Your task to perform on an android device: open app "DoorDash - Dasher" (install if not already installed) and enter user name: "resistor@inbox.com" and password: "cholera" Image 0: 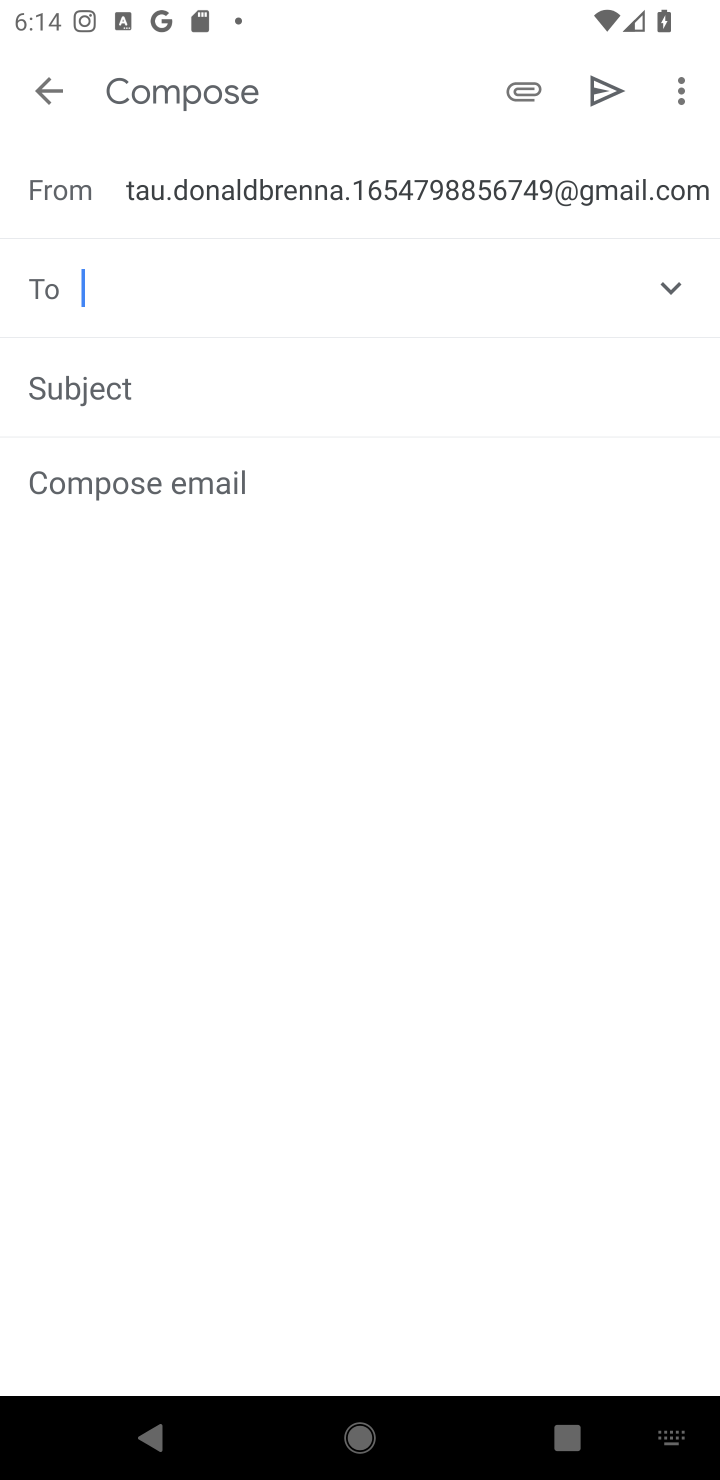
Step 0: press home button
Your task to perform on an android device: open app "DoorDash - Dasher" (install if not already installed) and enter user name: "resistor@inbox.com" and password: "cholera" Image 1: 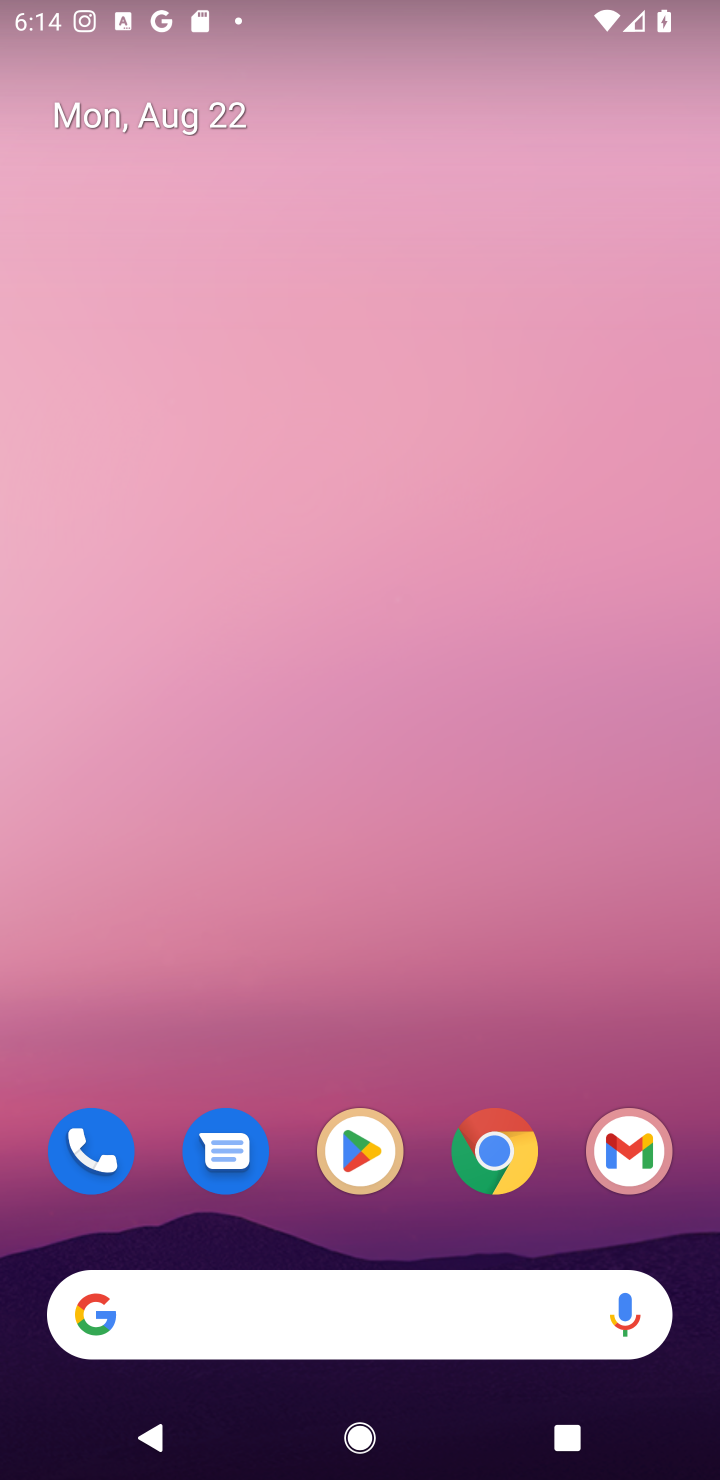
Step 1: click (347, 1156)
Your task to perform on an android device: open app "DoorDash - Dasher" (install if not already installed) and enter user name: "resistor@inbox.com" and password: "cholera" Image 2: 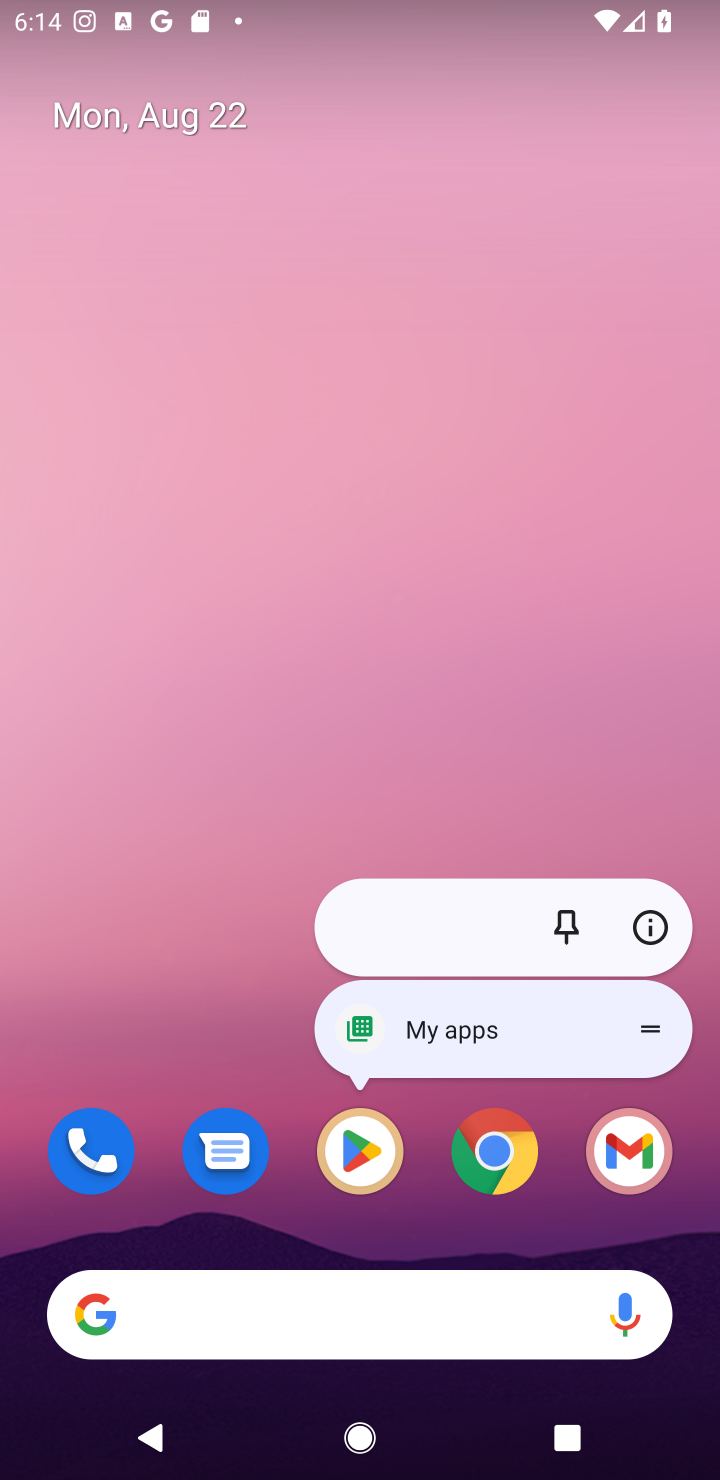
Step 2: click (367, 1161)
Your task to perform on an android device: open app "DoorDash - Dasher" (install if not already installed) and enter user name: "resistor@inbox.com" and password: "cholera" Image 3: 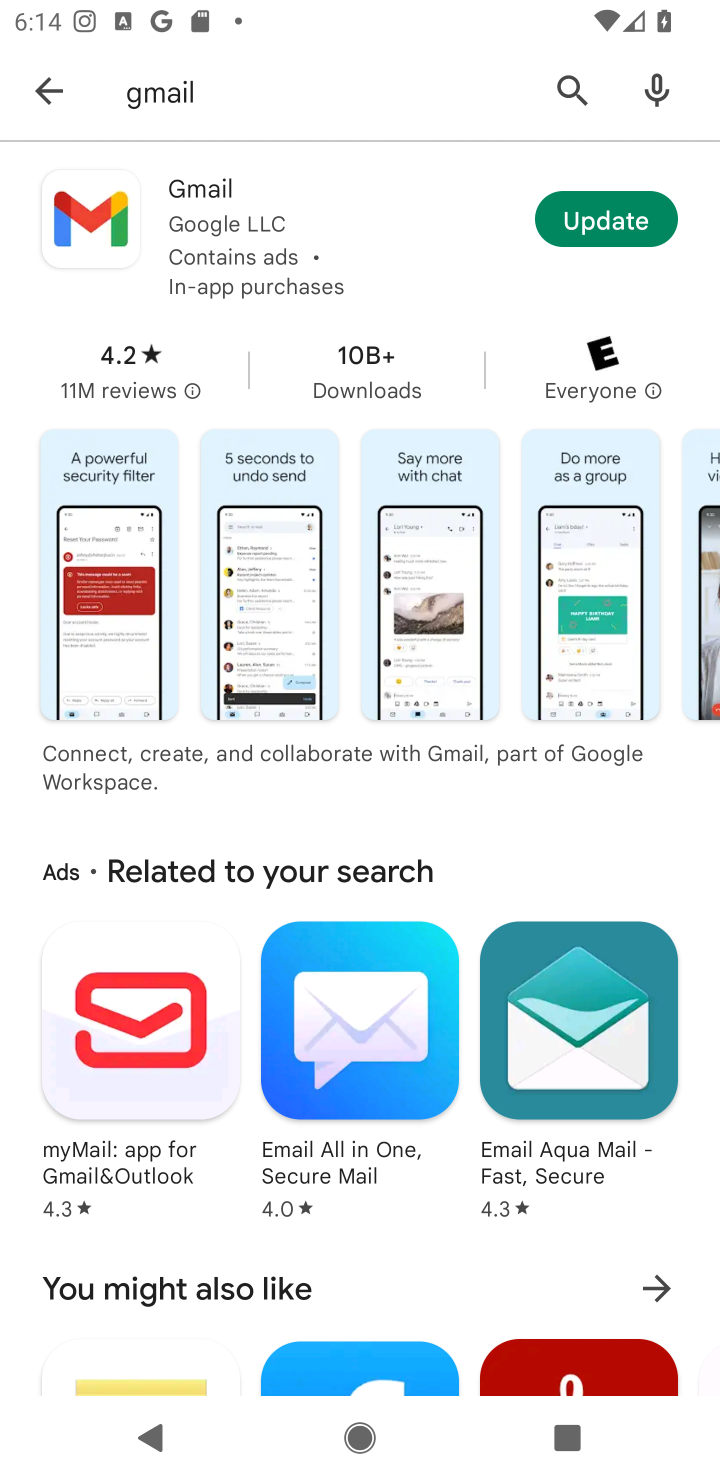
Step 3: click (563, 80)
Your task to perform on an android device: open app "DoorDash - Dasher" (install if not already installed) and enter user name: "resistor@inbox.com" and password: "cholera" Image 4: 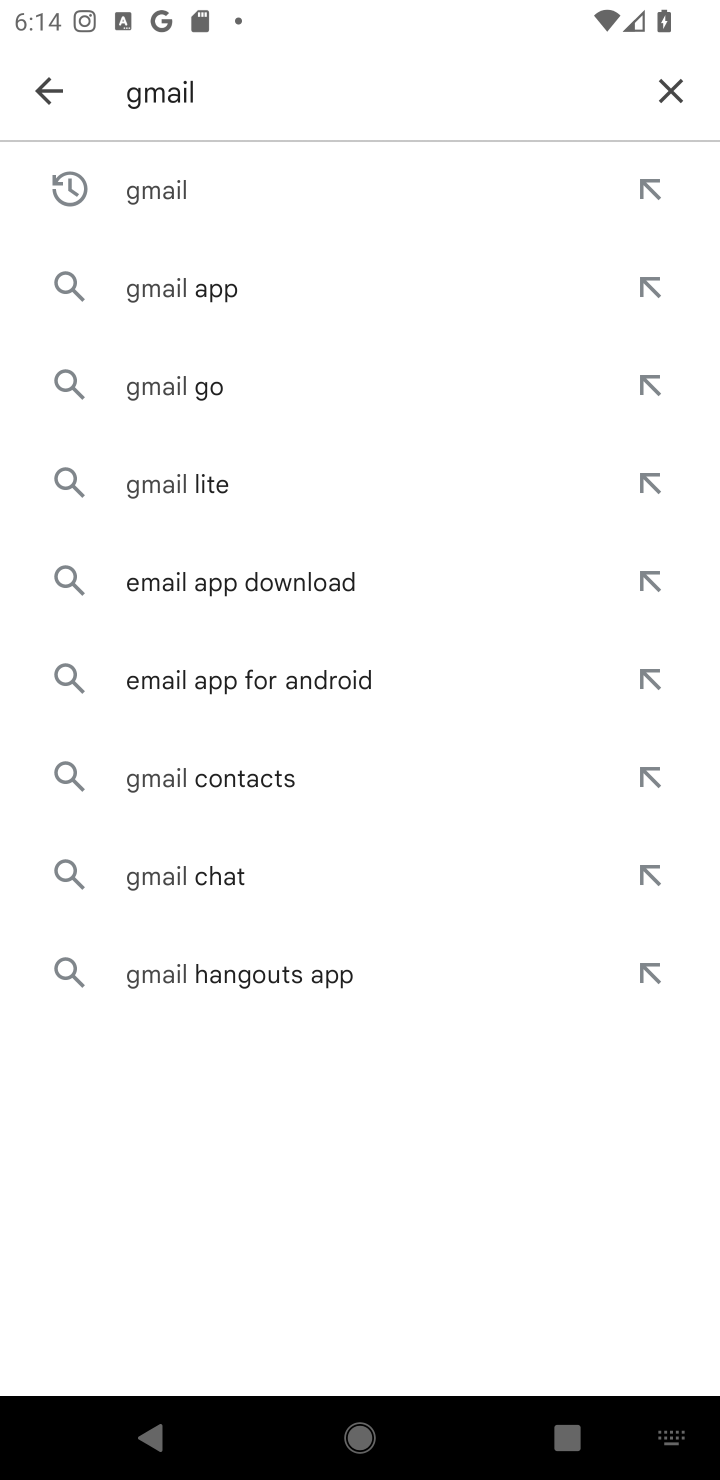
Step 4: click (670, 86)
Your task to perform on an android device: open app "DoorDash - Dasher" (install if not already installed) and enter user name: "resistor@inbox.com" and password: "cholera" Image 5: 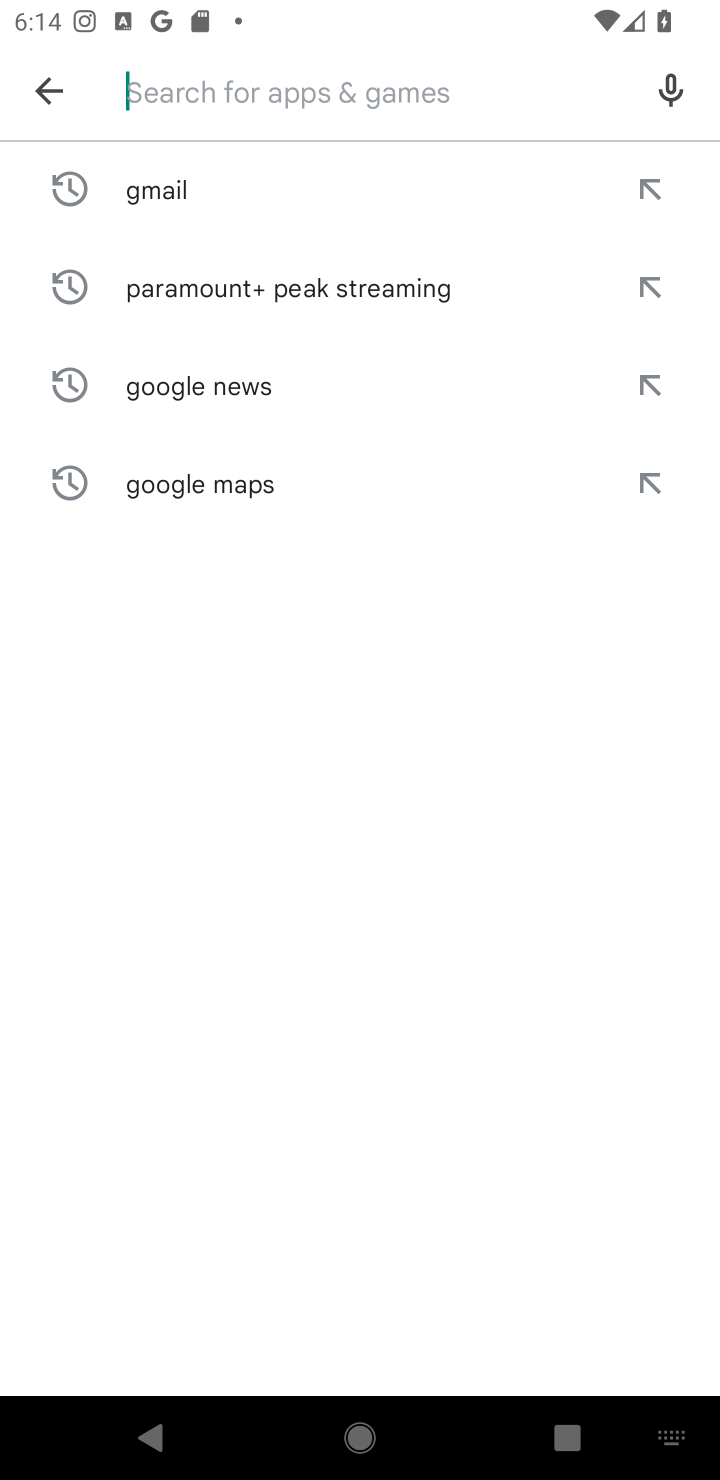
Step 5: type "DoorDash - Dasher"
Your task to perform on an android device: open app "DoorDash - Dasher" (install if not already installed) and enter user name: "resistor@inbox.com" and password: "cholera" Image 6: 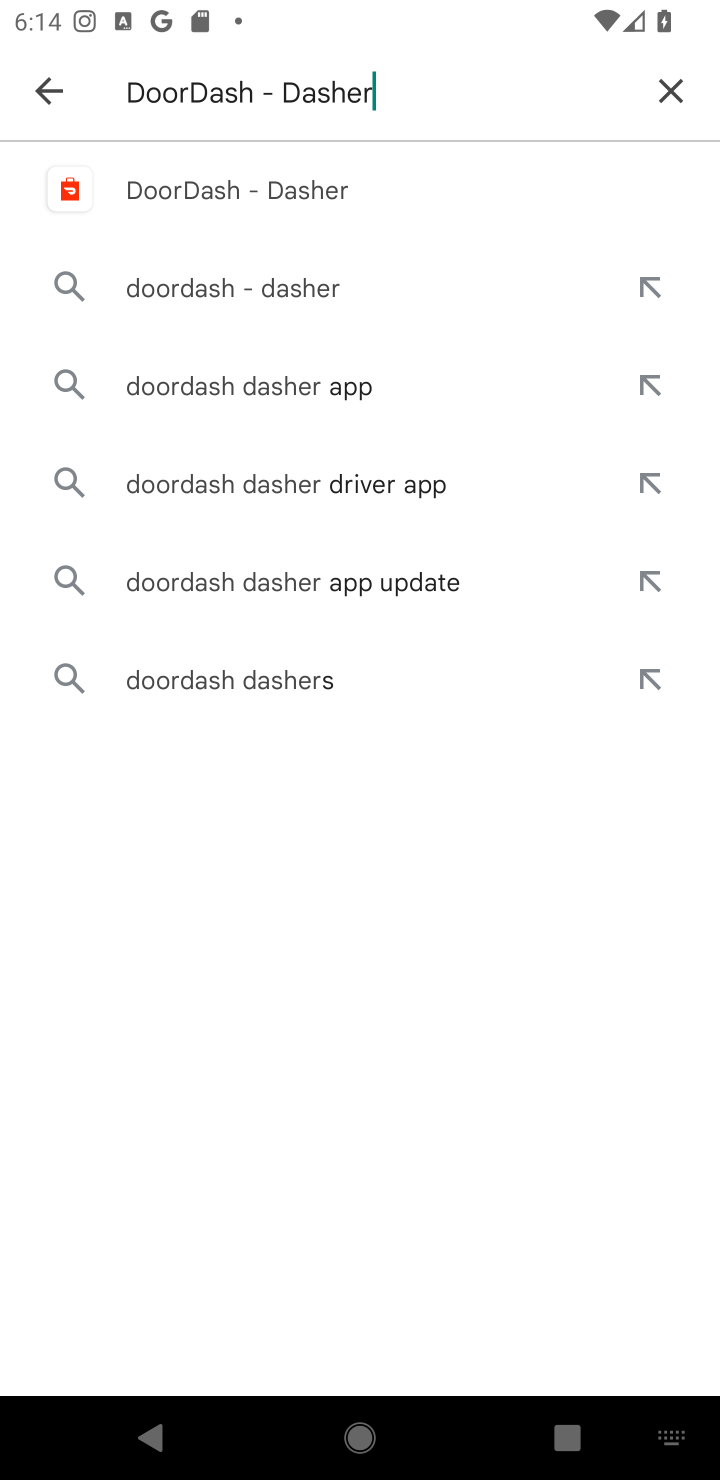
Step 6: click (323, 185)
Your task to perform on an android device: open app "DoorDash - Dasher" (install if not already installed) and enter user name: "resistor@inbox.com" and password: "cholera" Image 7: 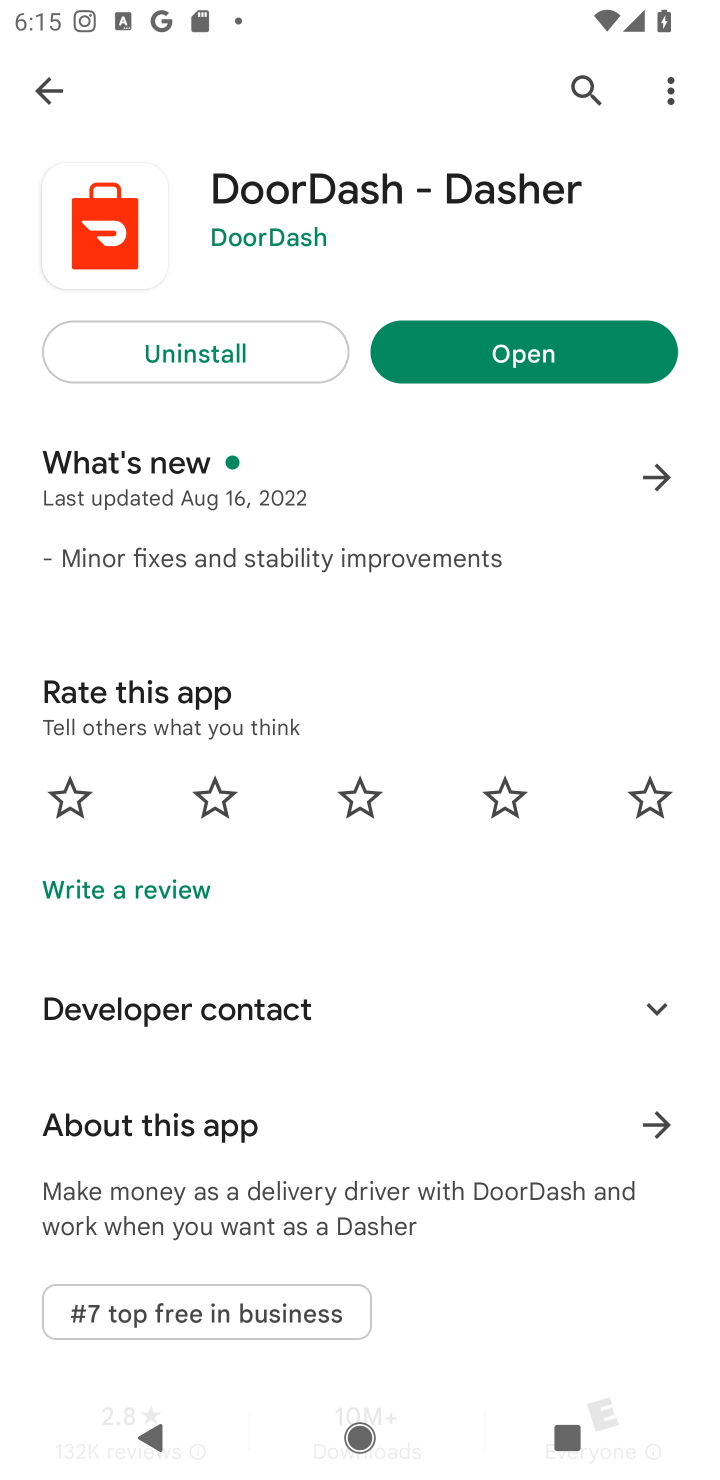
Step 7: click (580, 333)
Your task to perform on an android device: open app "DoorDash - Dasher" (install if not already installed) and enter user name: "resistor@inbox.com" and password: "cholera" Image 8: 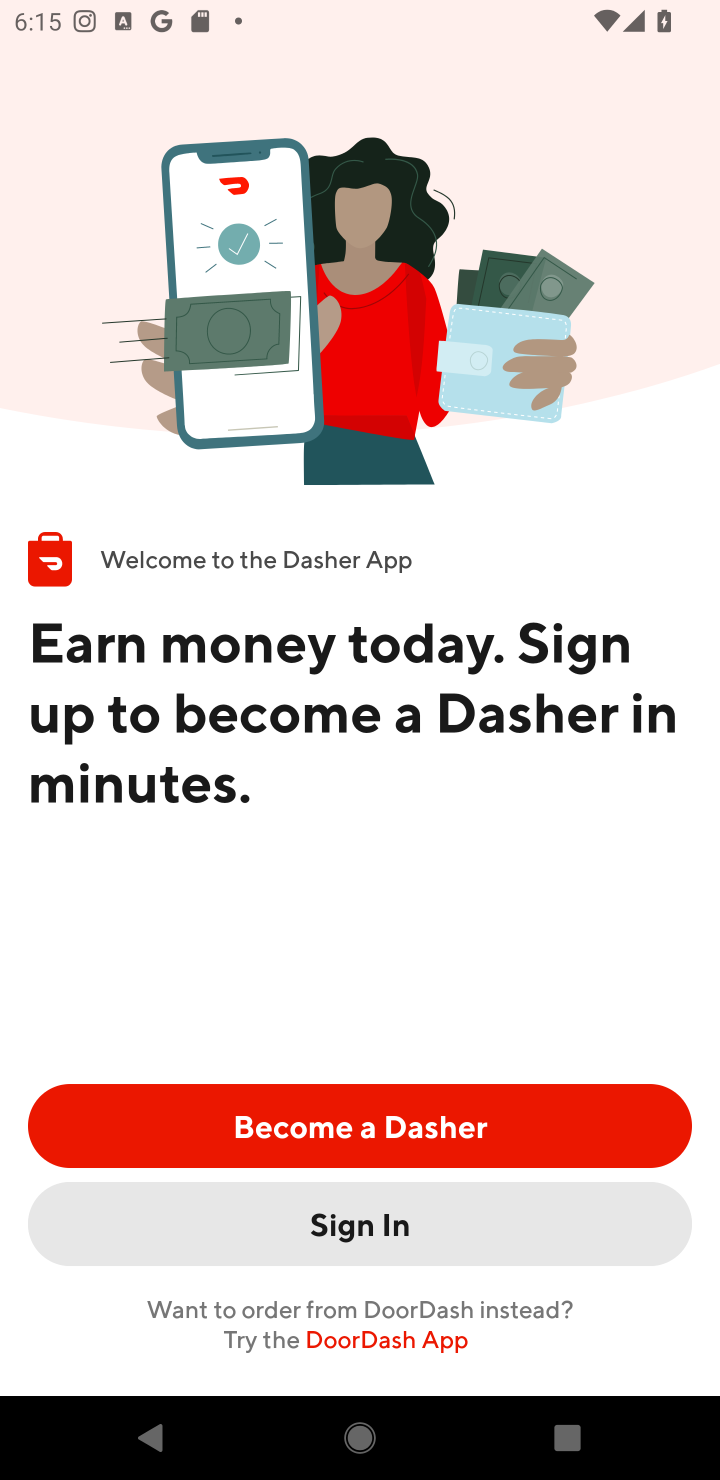
Step 8: click (391, 1215)
Your task to perform on an android device: open app "DoorDash - Dasher" (install if not already installed) and enter user name: "resistor@inbox.com" and password: "cholera" Image 9: 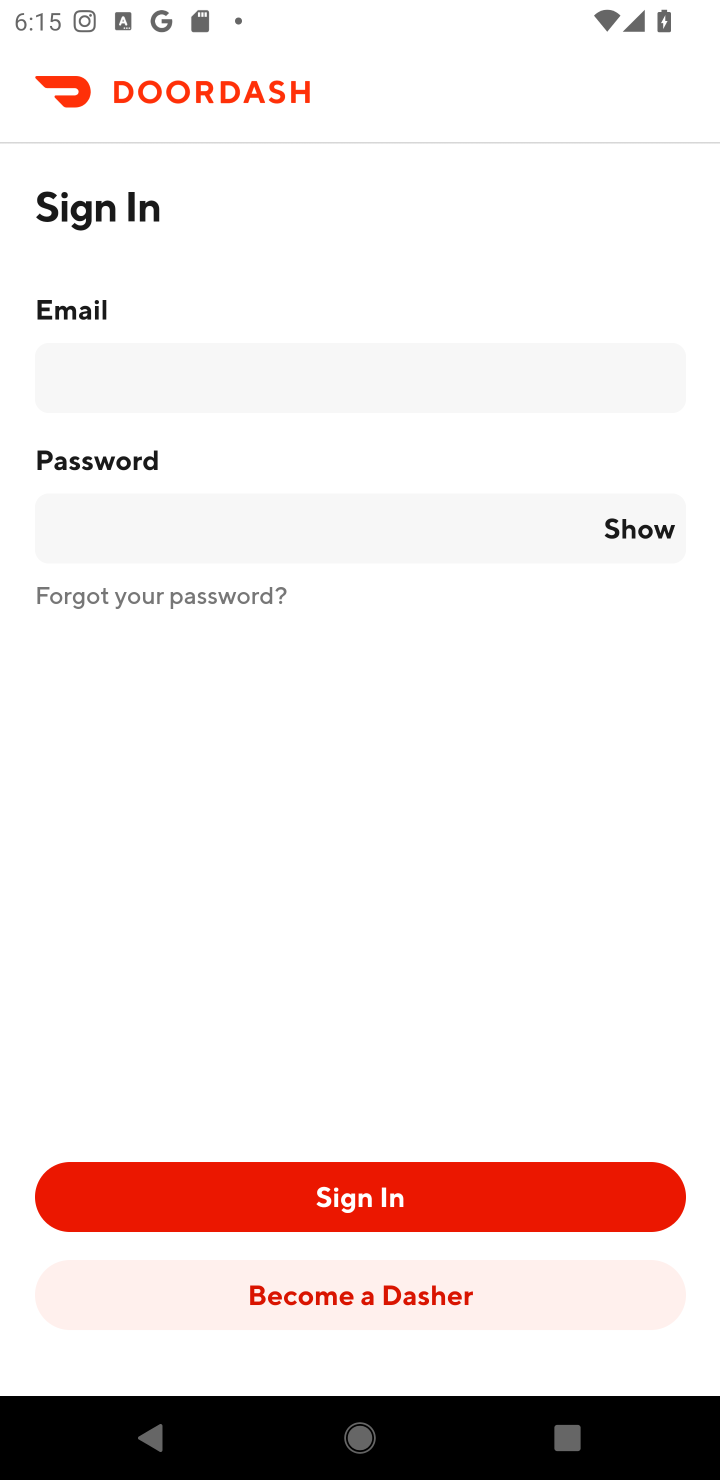
Step 9: click (116, 294)
Your task to perform on an android device: open app "DoorDash - Dasher" (install if not already installed) and enter user name: "resistor@inbox.com" and password: "cholera" Image 10: 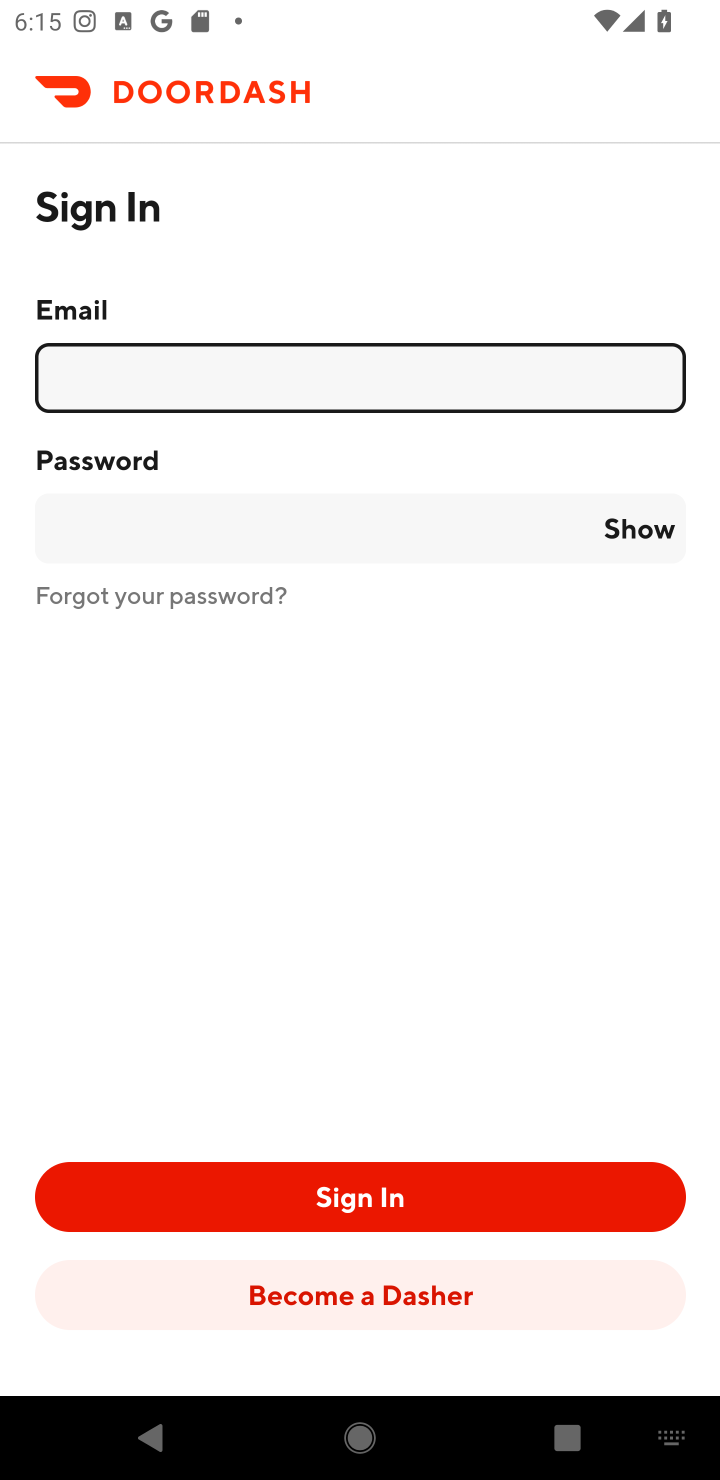
Step 10: type "resistor@inbox.com"
Your task to perform on an android device: open app "DoorDash - Dasher" (install if not already installed) and enter user name: "resistor@inbox.com" and password: "cholera" Image 11: 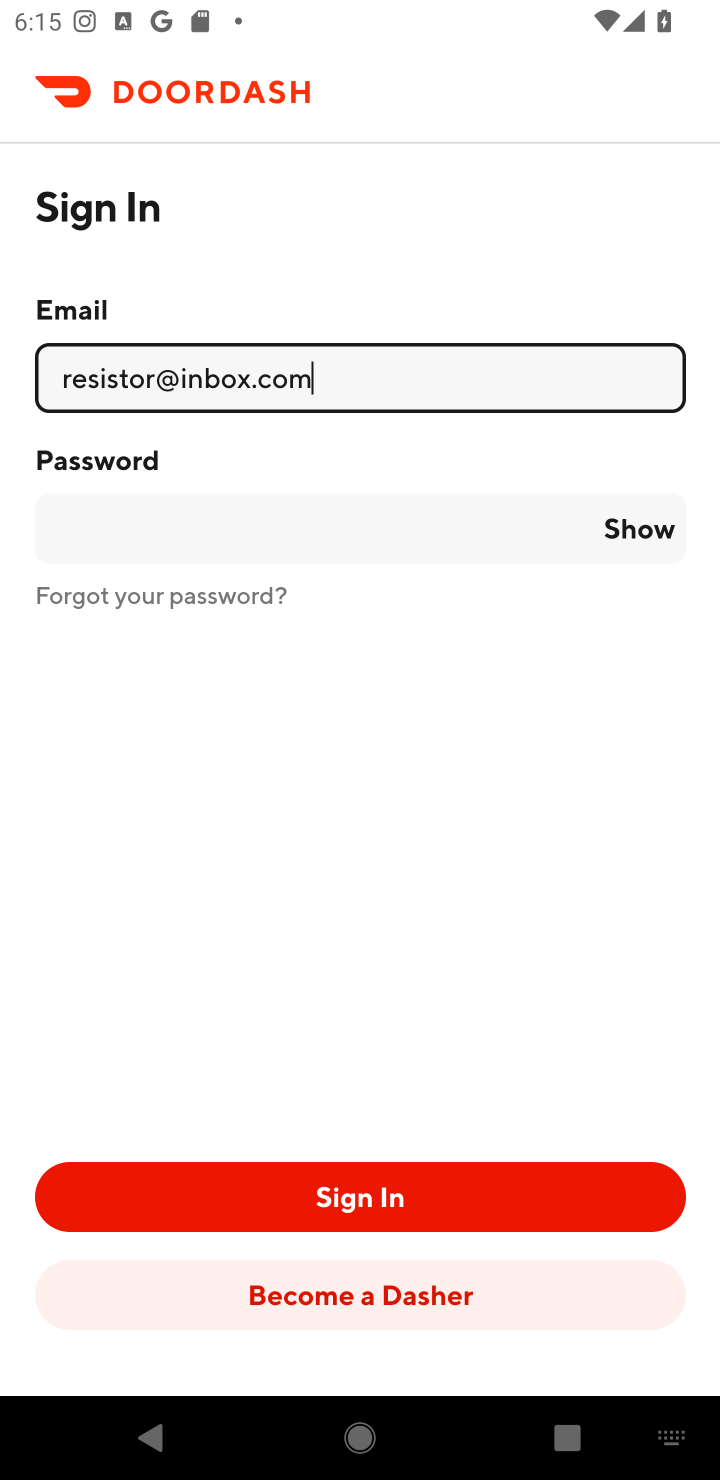
Step 11: click (102, 529)
Your task to perform on an android device: open app "DoorDash - Dasher" (install if not already installed) and enter user name: "resistor@inbox.com" and password: "cholera" Image 12: 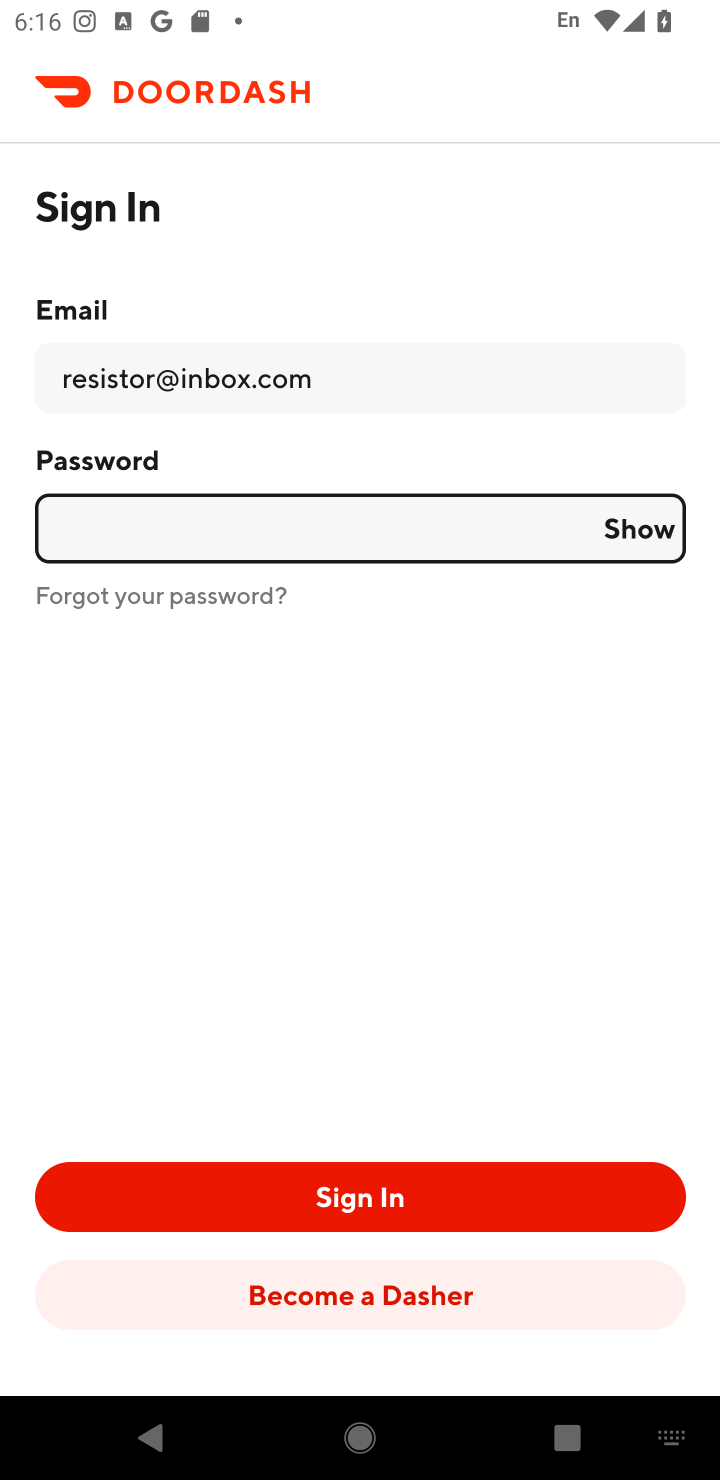
Step 12: type "cholera"
Your task to perform on an android device: open app "DoorDash - Dasher" (install if not already installed) and enter user name: "resistor@inbox.com" and password: "cholera" Image 13: 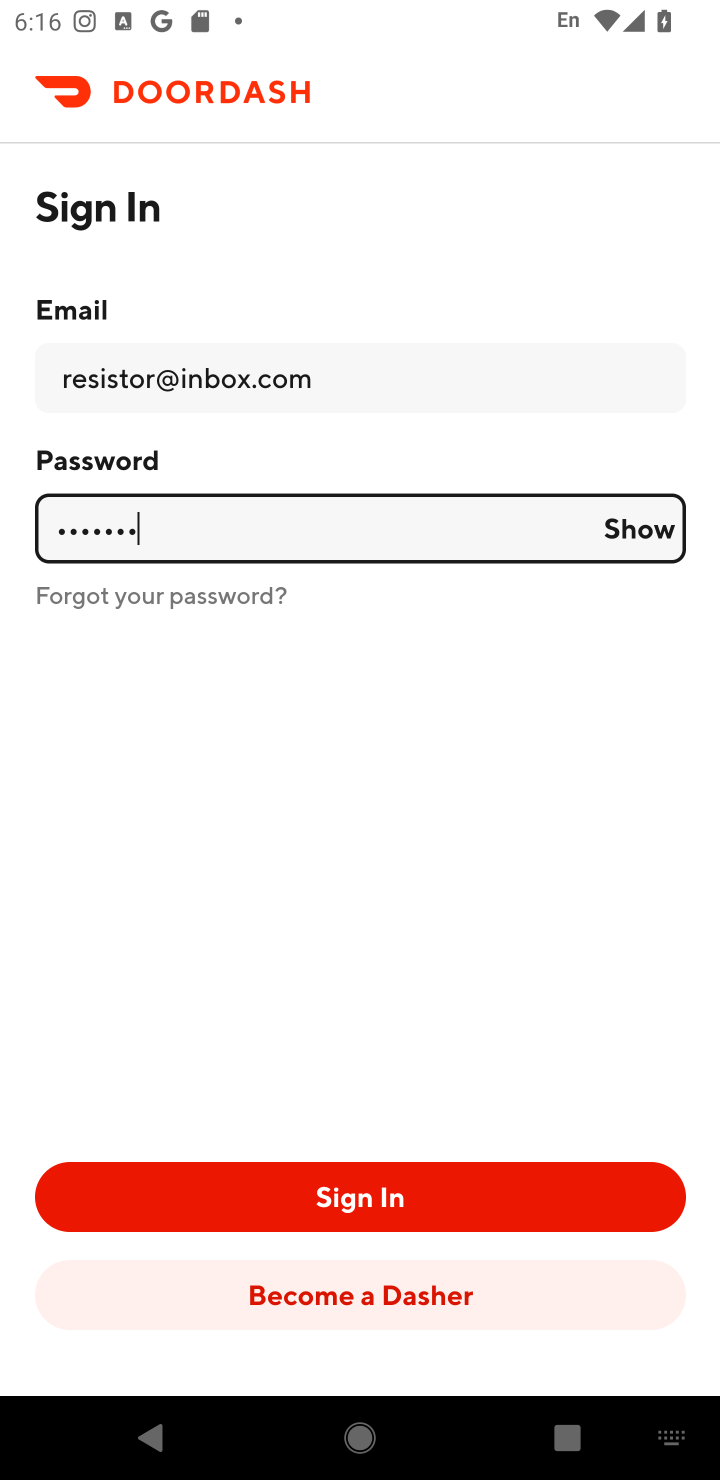
Step 13: task complete